Your task to perform on an android device: Show me productivity apps on the Play Store Image 0: 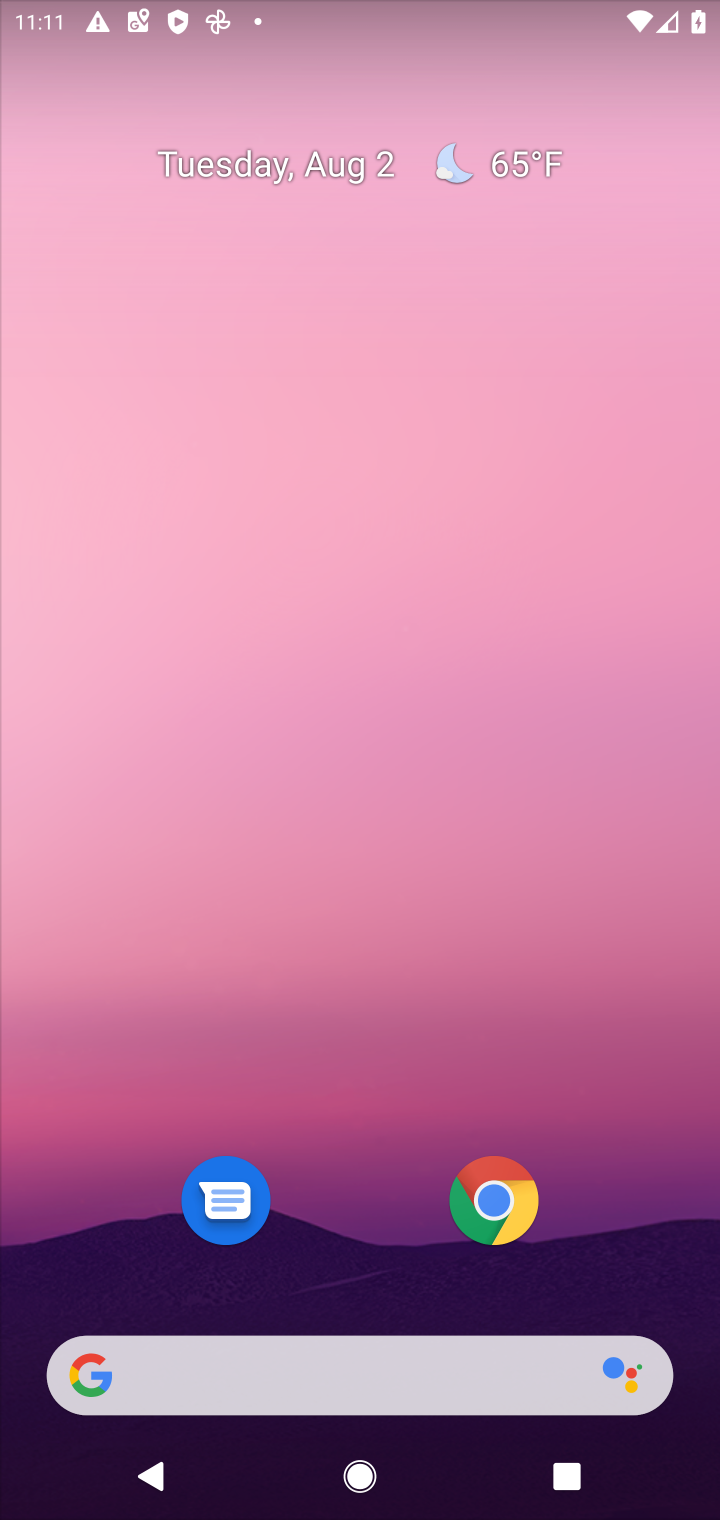
Step 0: drag from (626, 934) to (586, 144)
Your task to perform on an android device: Show me productivity apps on the Play Store Image 1: 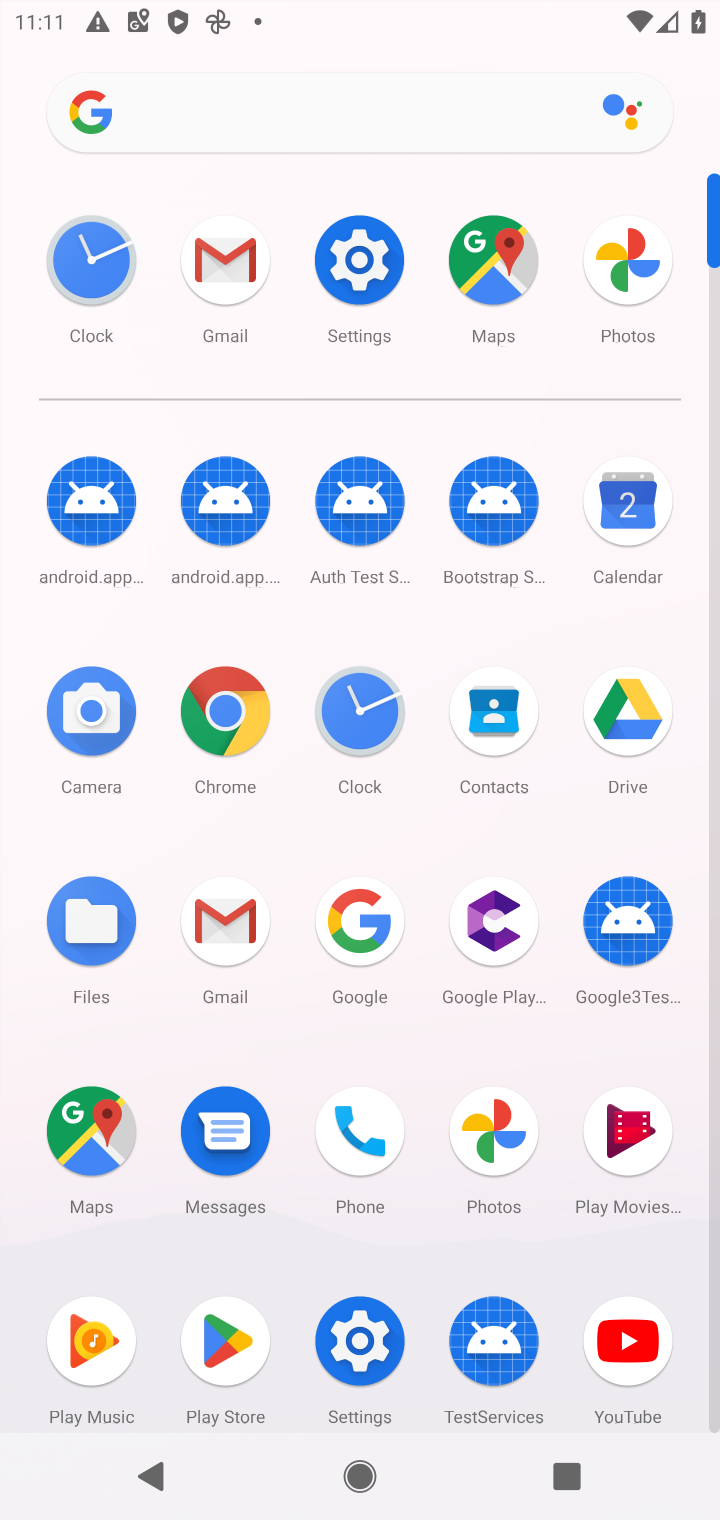
Step 1: click (232, 1334)
Your task to perform on an android device: Show me productivity apps on the Play Store Image 2: 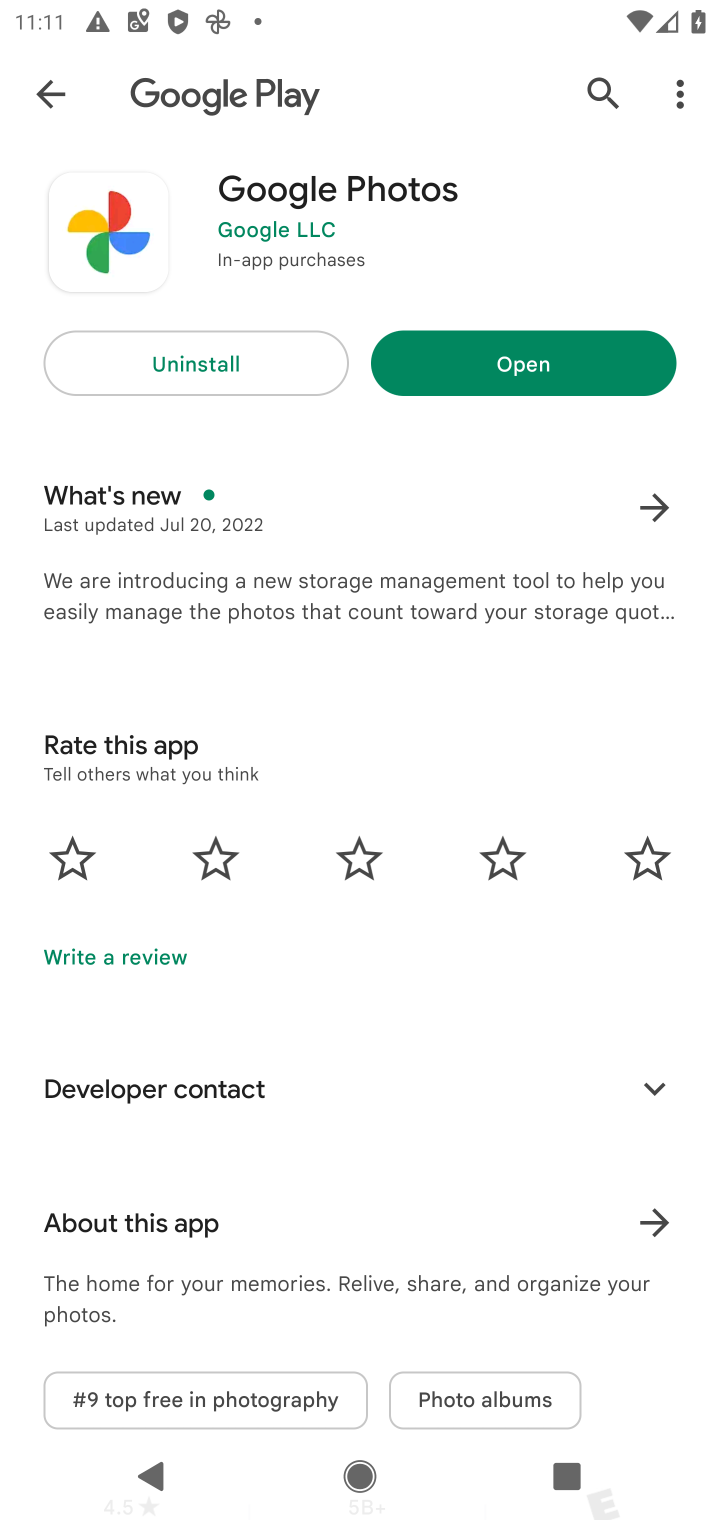
Step 2: press back button
Your task to perform on an android device: Show me productivity apps on the Play Store Image 3: 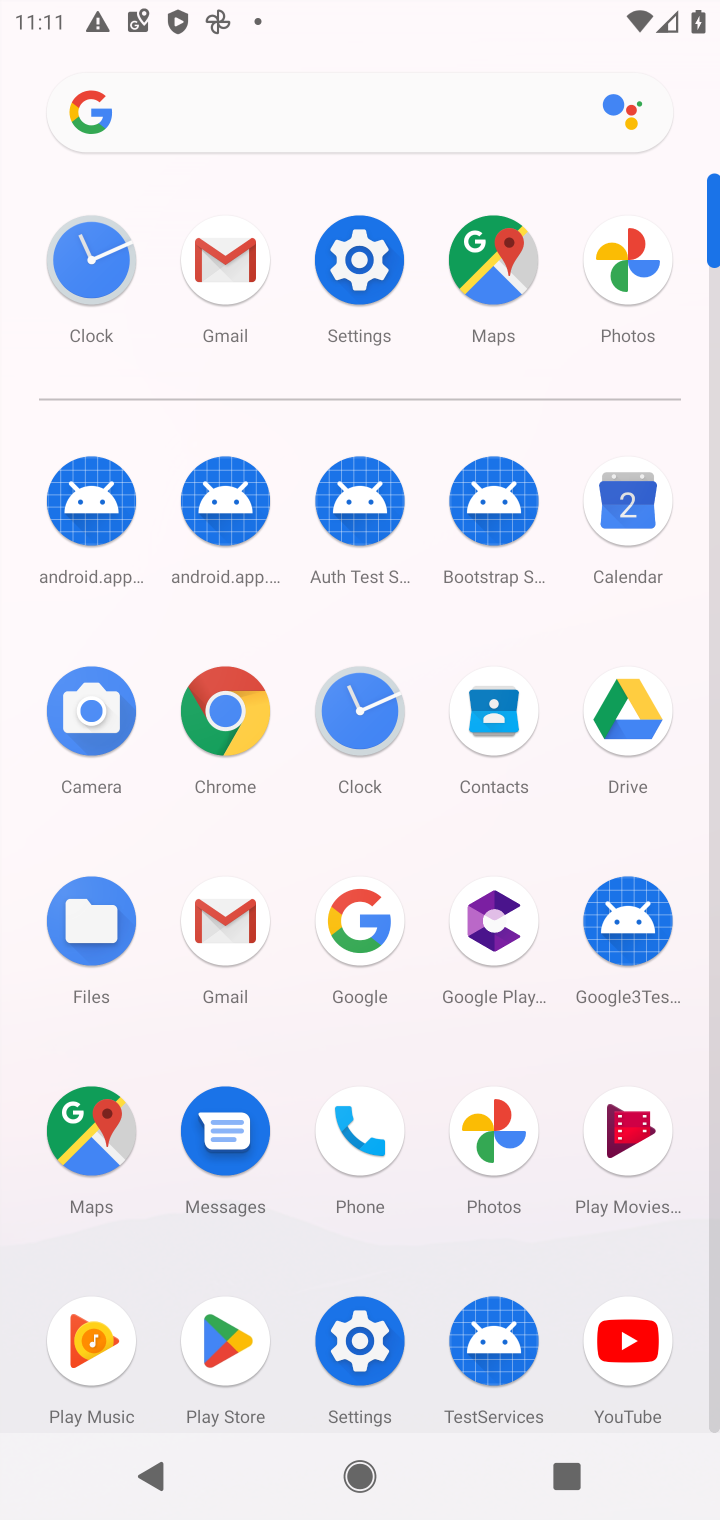
Step 3: click (224, 1345)
Your task to perform on an android device: Show me productivity apps on the Play Store Image 4: 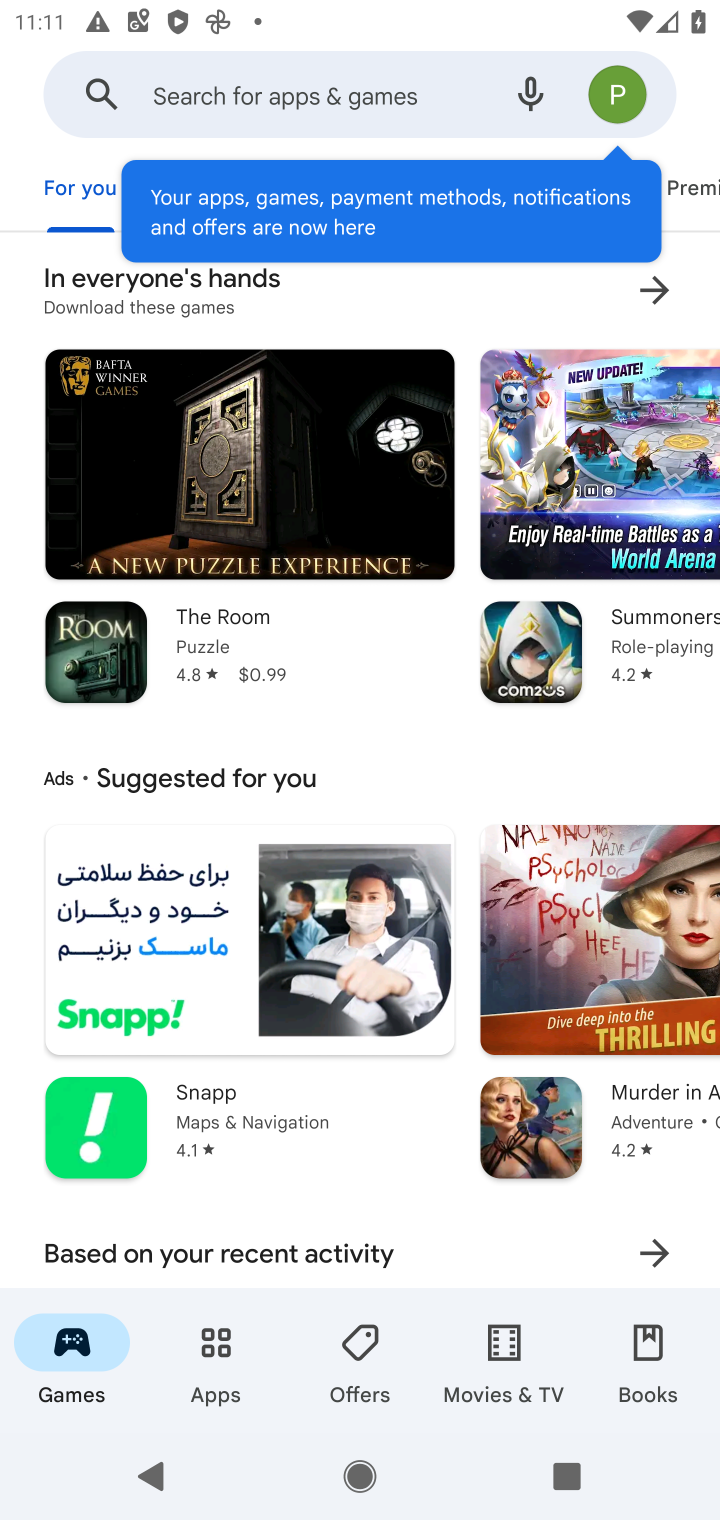
Step 4: click (215, 1340)
Your task to perform on an android device: Show me productivity apps on the Play Store Image 5: 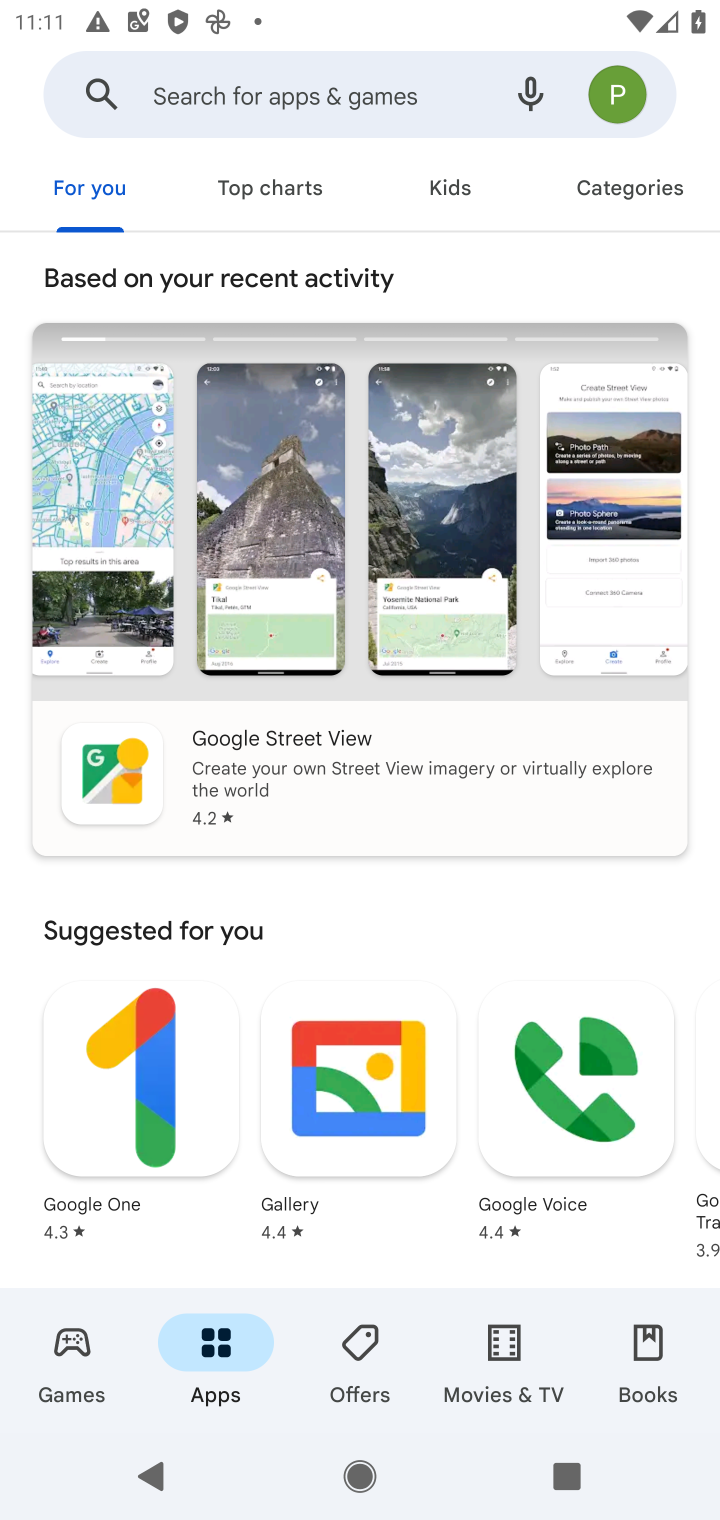
Step 5: click (621, 190)
Your task to perform on an android device: Show me productivity apps on the Play Store Image 6: 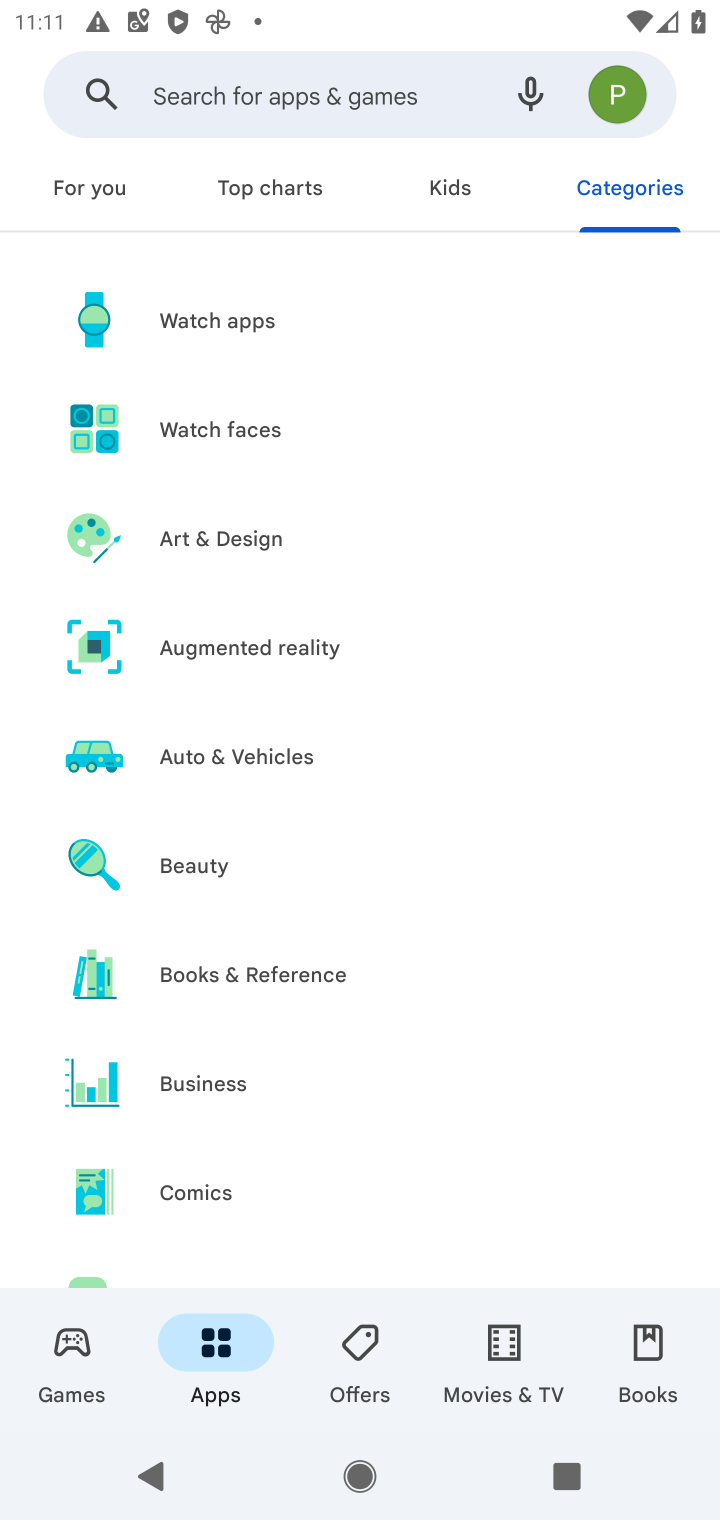
Step 6: drag from (366, 1235) to (371, 320)
Your task to perform on an android device: Show me productivity apps on the Play Store Image 7: 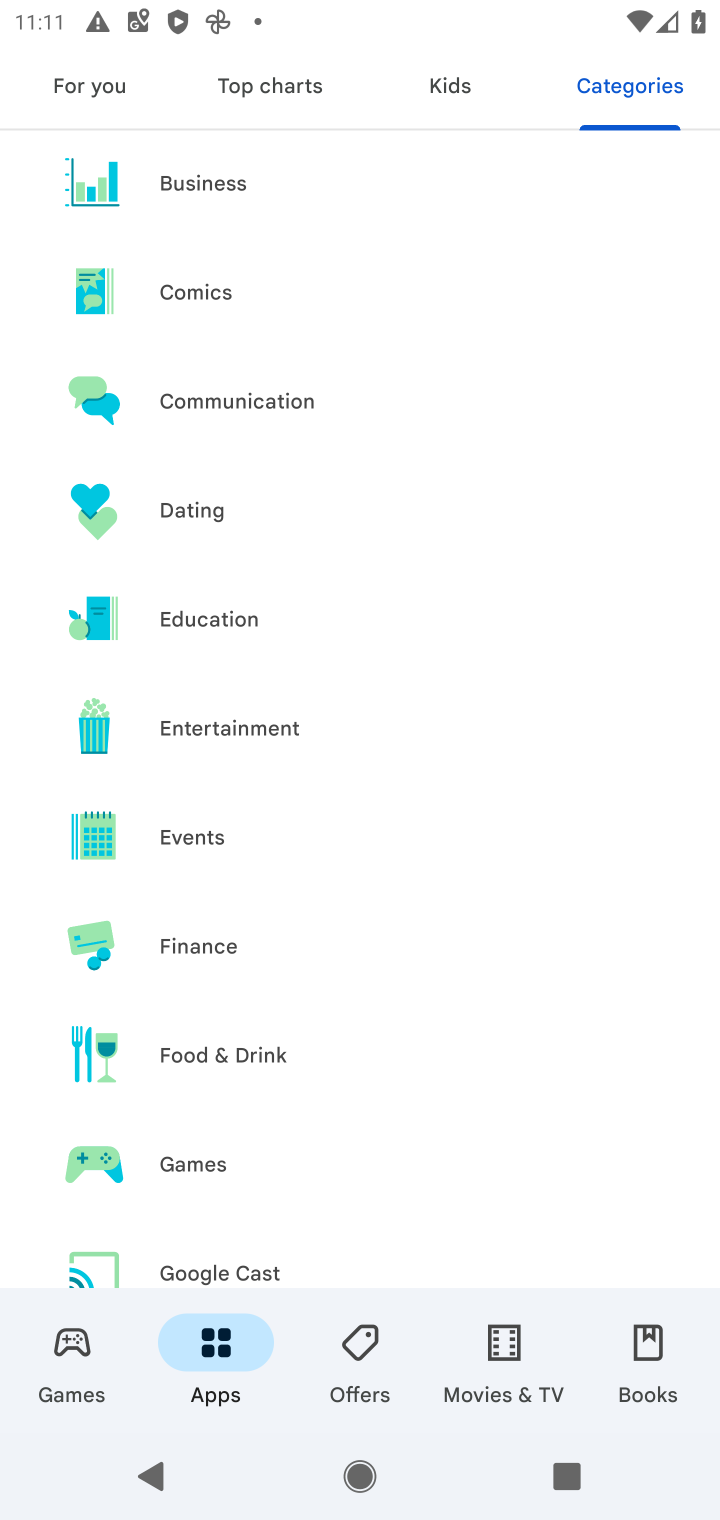
Step 7: drag from (375, 1209) to (398, 378)
Your task to perform on an android device: Show me productivity apps on the Play Store Image 8: 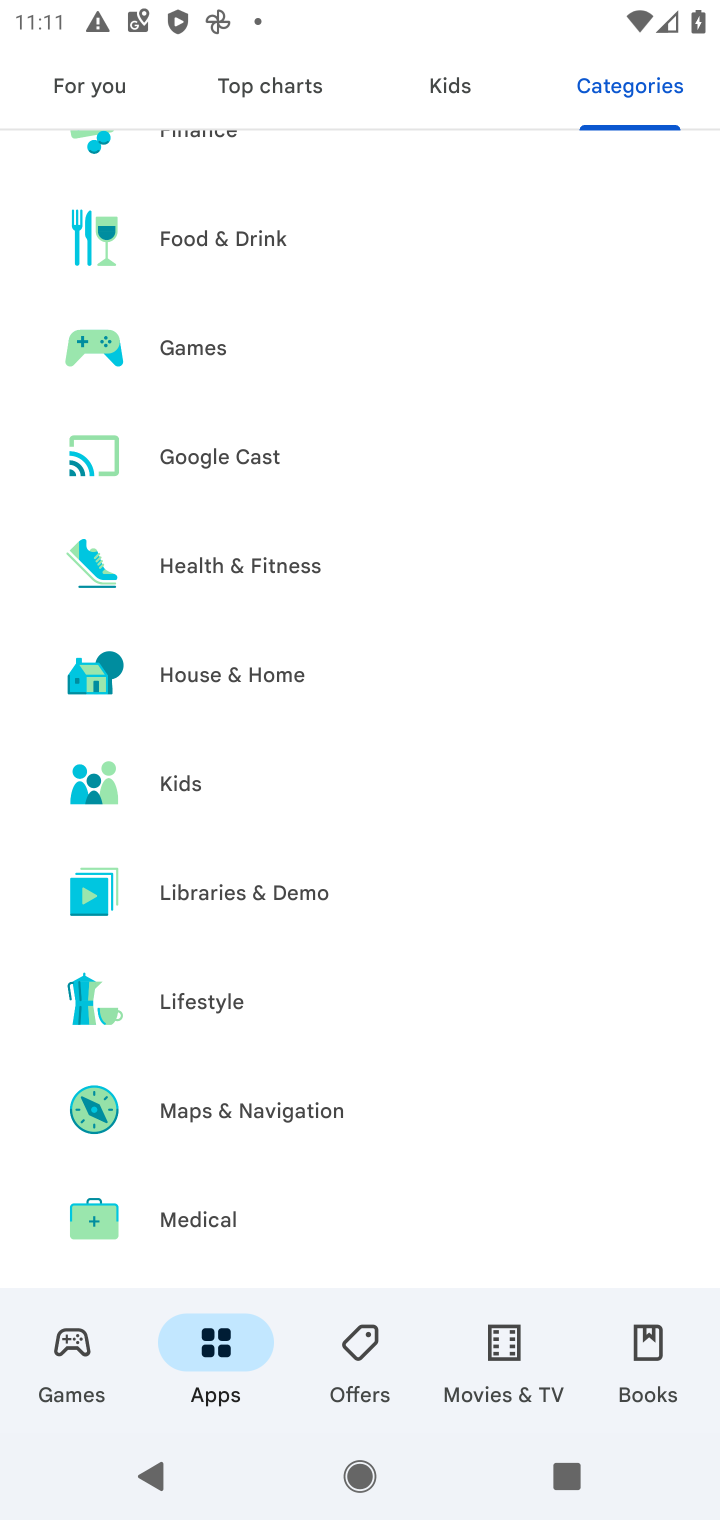
Step 8: drag from (462, 1227) to (414, 420)
Your task to perform on an android device: Show me productivity apps on the Play Store Image 9: 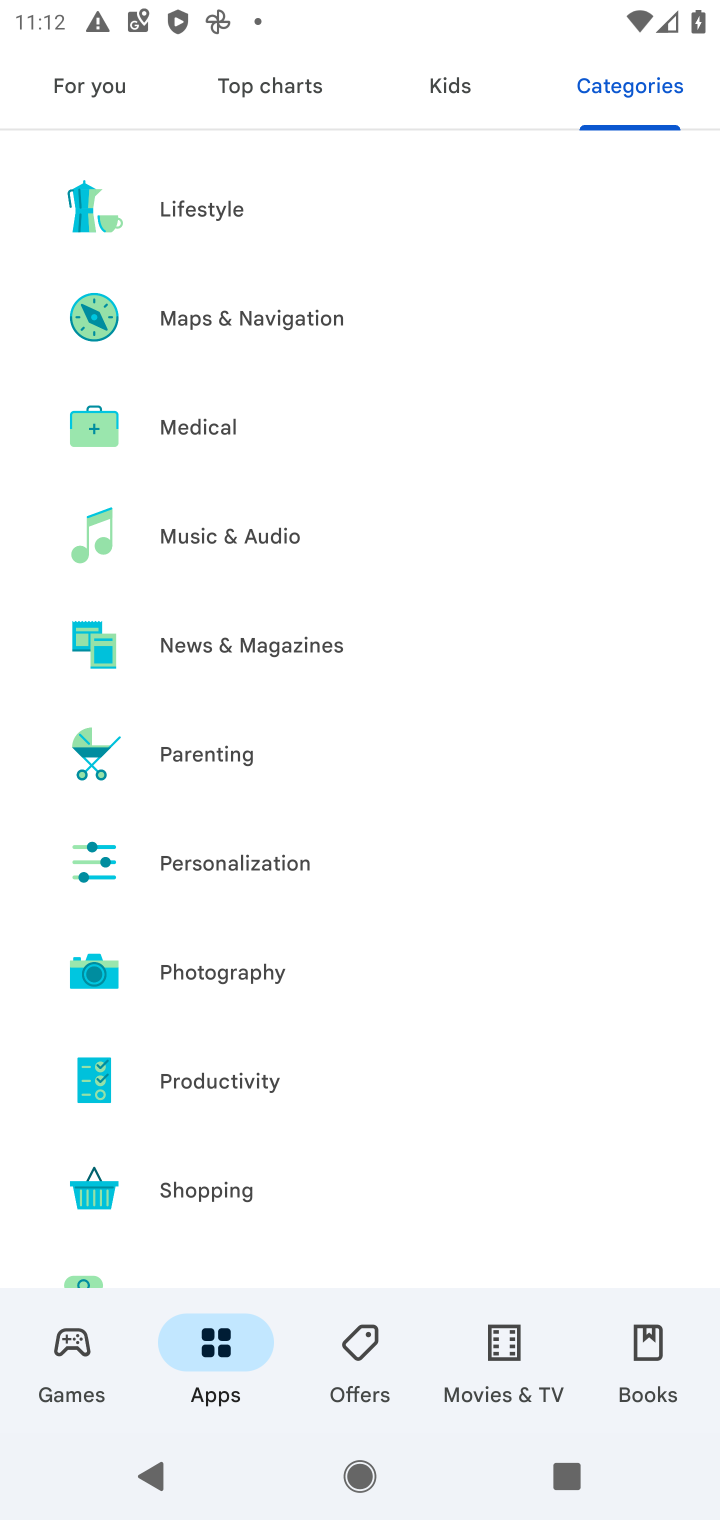
Step 9: click (201, 1073)
Your task to perform on an android device: Show me productivity apps on the Play Store Image 10: 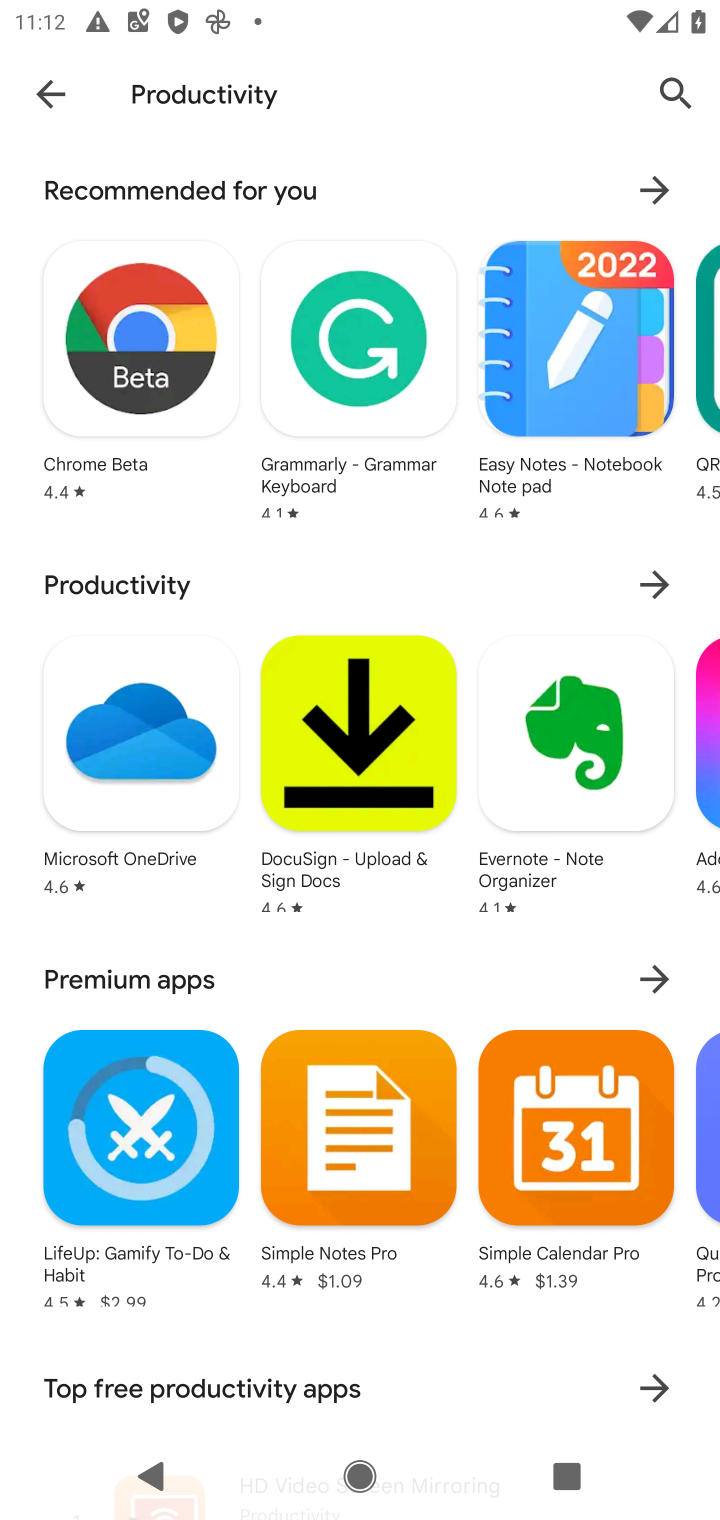
Step 10: click (657, 578)
Your task to perform on an android device: Show me productivity apps on the Play Store Image 11: 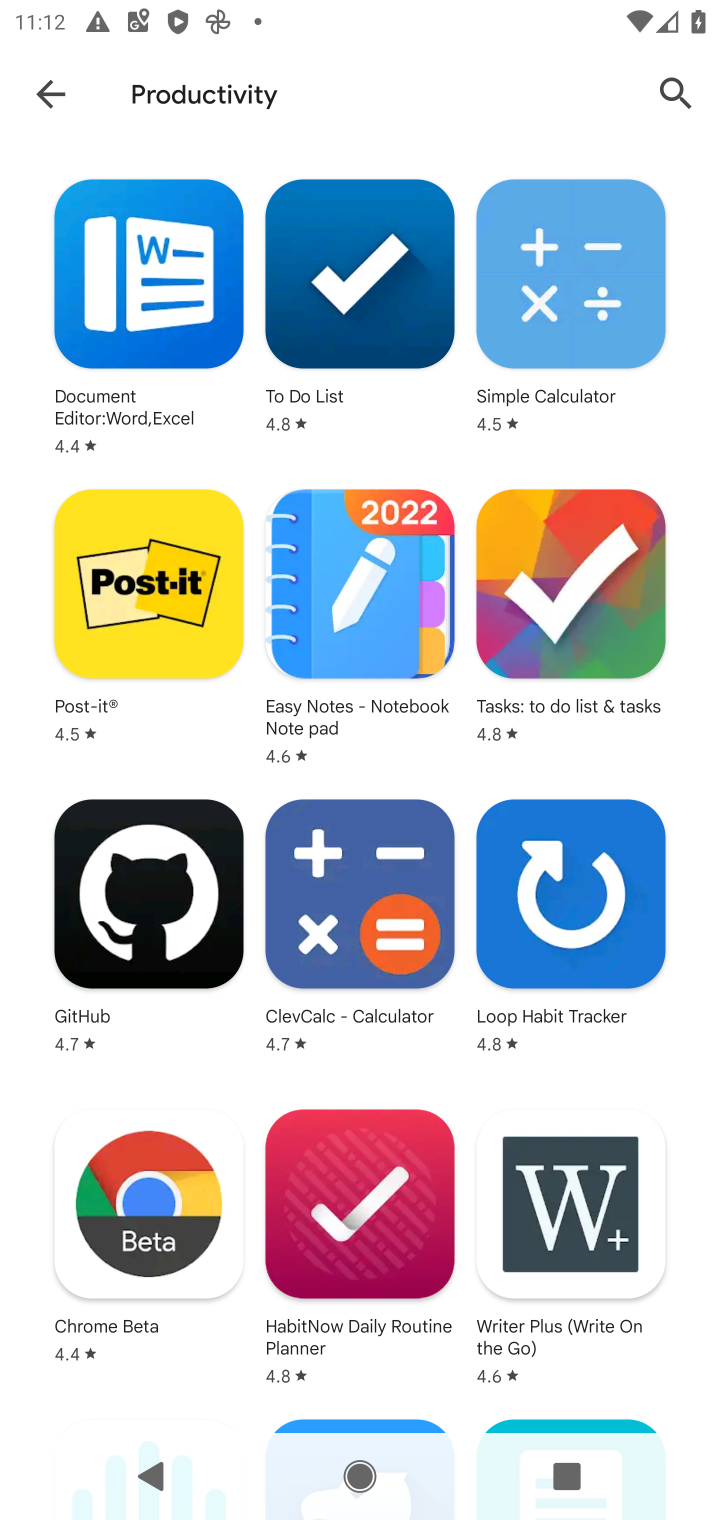
Step 11: task complete